Your task to perform on an android device: turn off sleep mode Image 0: 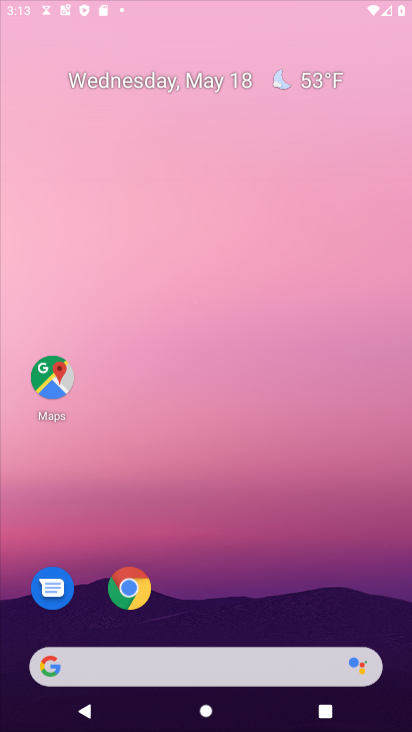
Step 0: press home button
Your task to perform on an android device: turn off sleep mode Image 1: 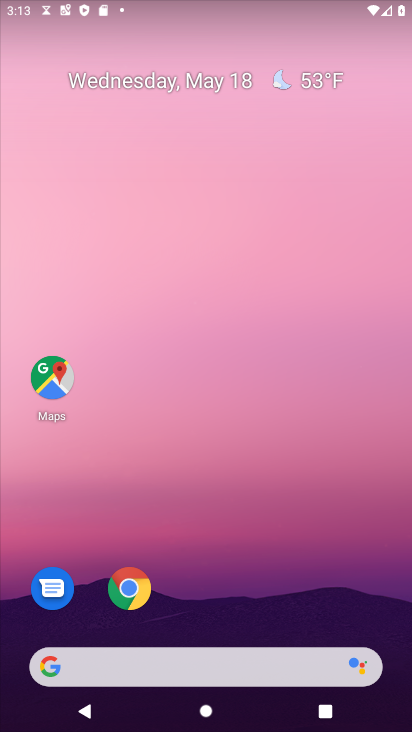
Step 1: drag from (183, 597) to (262, 13)
Your task to perform on an android device: turn off sleep mode Image 2: 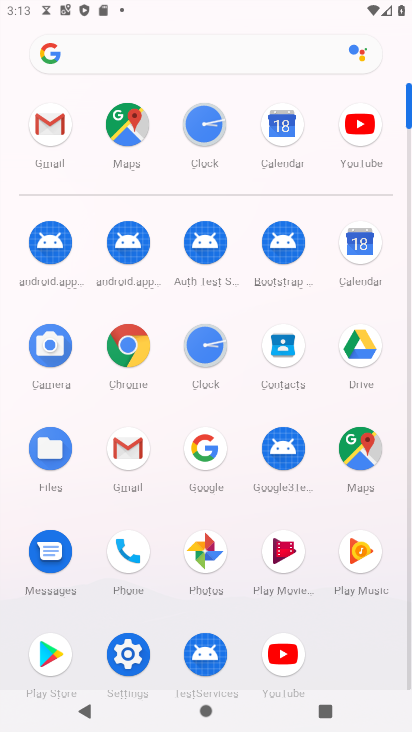
Step 2: click (147, 641)
Your task to perform on an android device: turn off sleep mode Image 3: 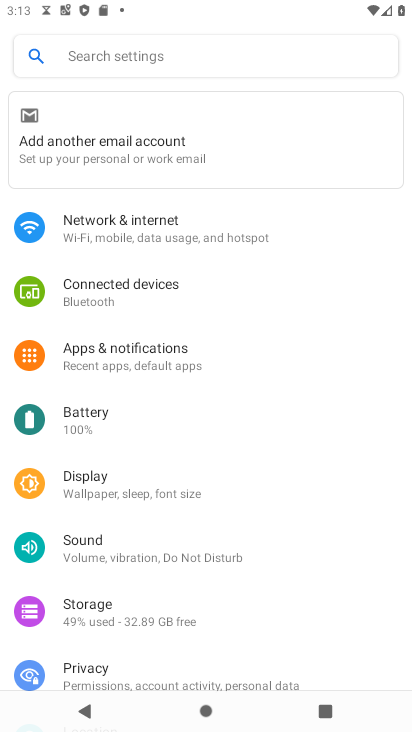
Step 3: click (194, 488)
Your task to perform on an android device: turn off sleep mode Image 4: 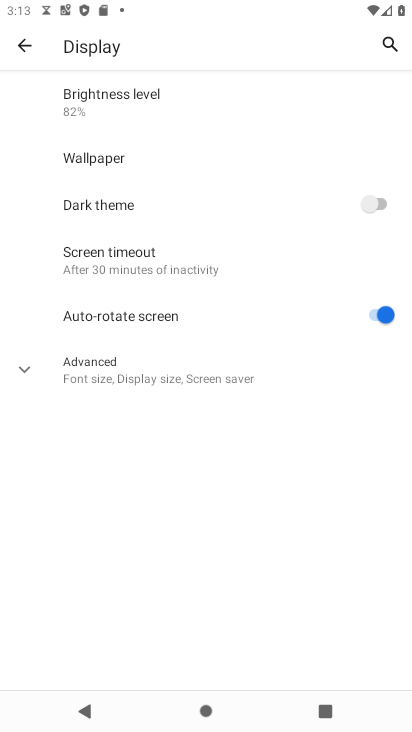
Step 4: task complete